Your task to perform on an android device: Search for sushi restaurants on Maps Image 0: 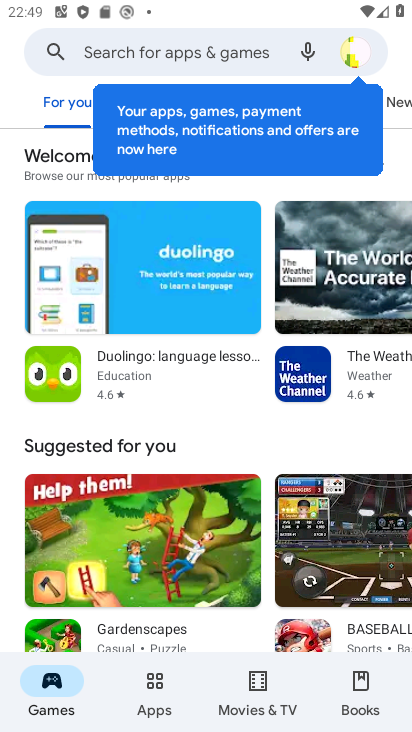
Step 0: press home button
Your task to perform on an android device: Search for sushi restaurants on Maps Image 1: 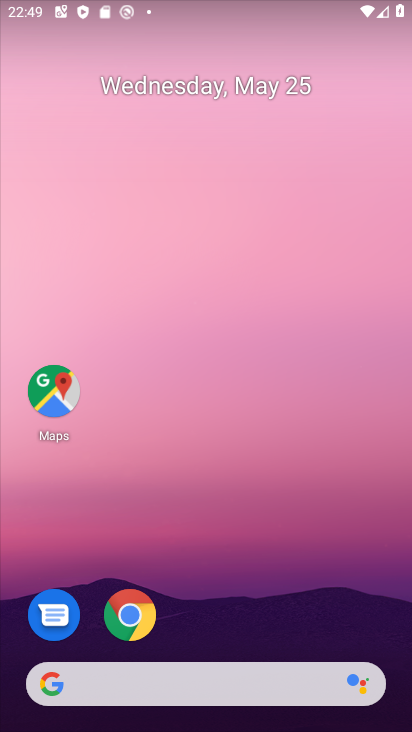
Step 1: click (61, 377)
Your task to perform on an android device: Search for sushi restaurants on Maps Image 2: 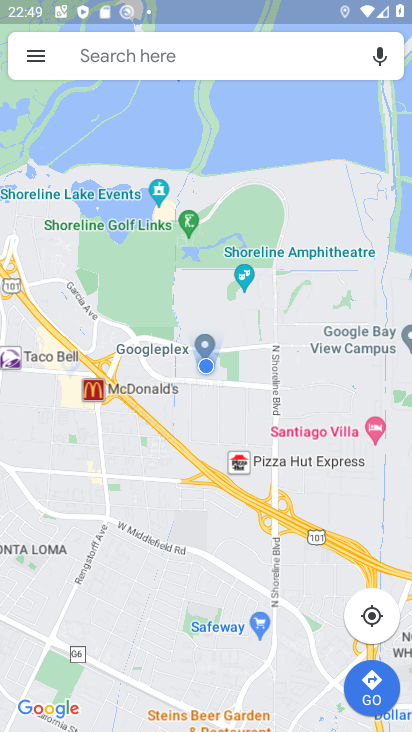
Step 2: click (208, 53)
Your task to perform on an android device: Search for sushi restaurants on Maps Image 3: 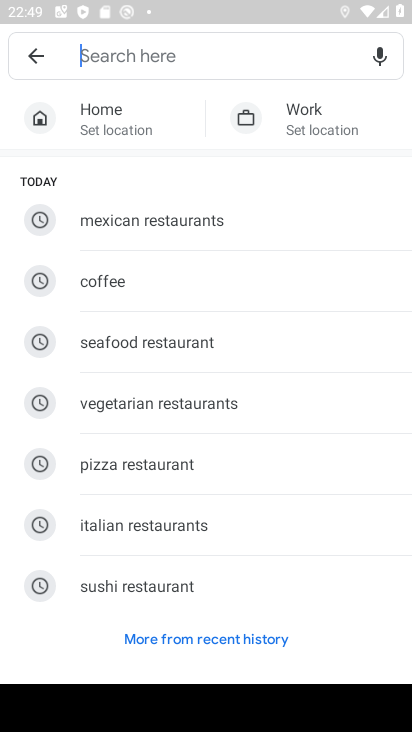
Step 3: click (102, 588)
Your task to perform on an android device: Search for sushi restaurants on Maps Image 4: 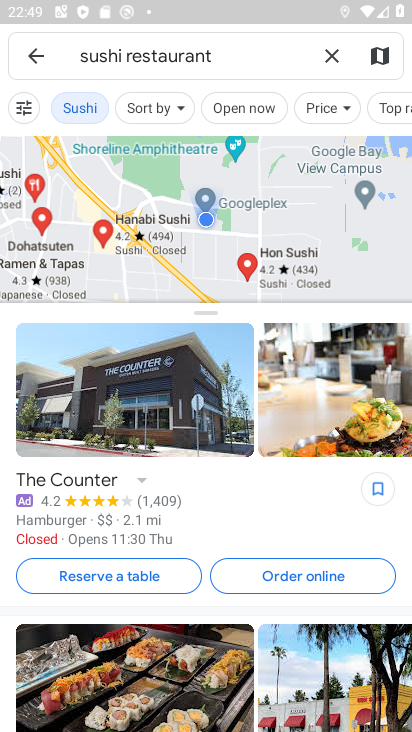
Step 4: task complete